Your task to perform on an android device: Go to eBay Image 0: 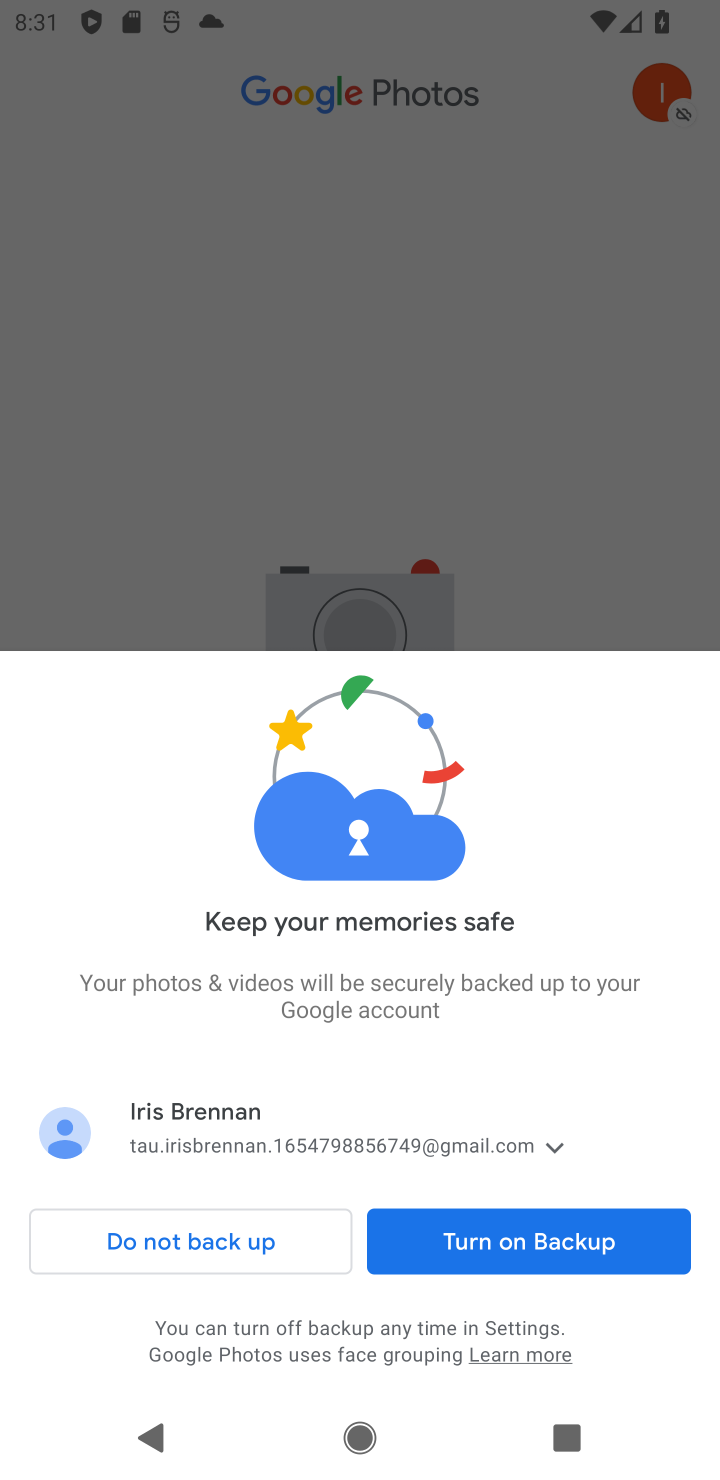
Step 0: press home button
Your task to perform on an android device: Go to eBay Image 1: 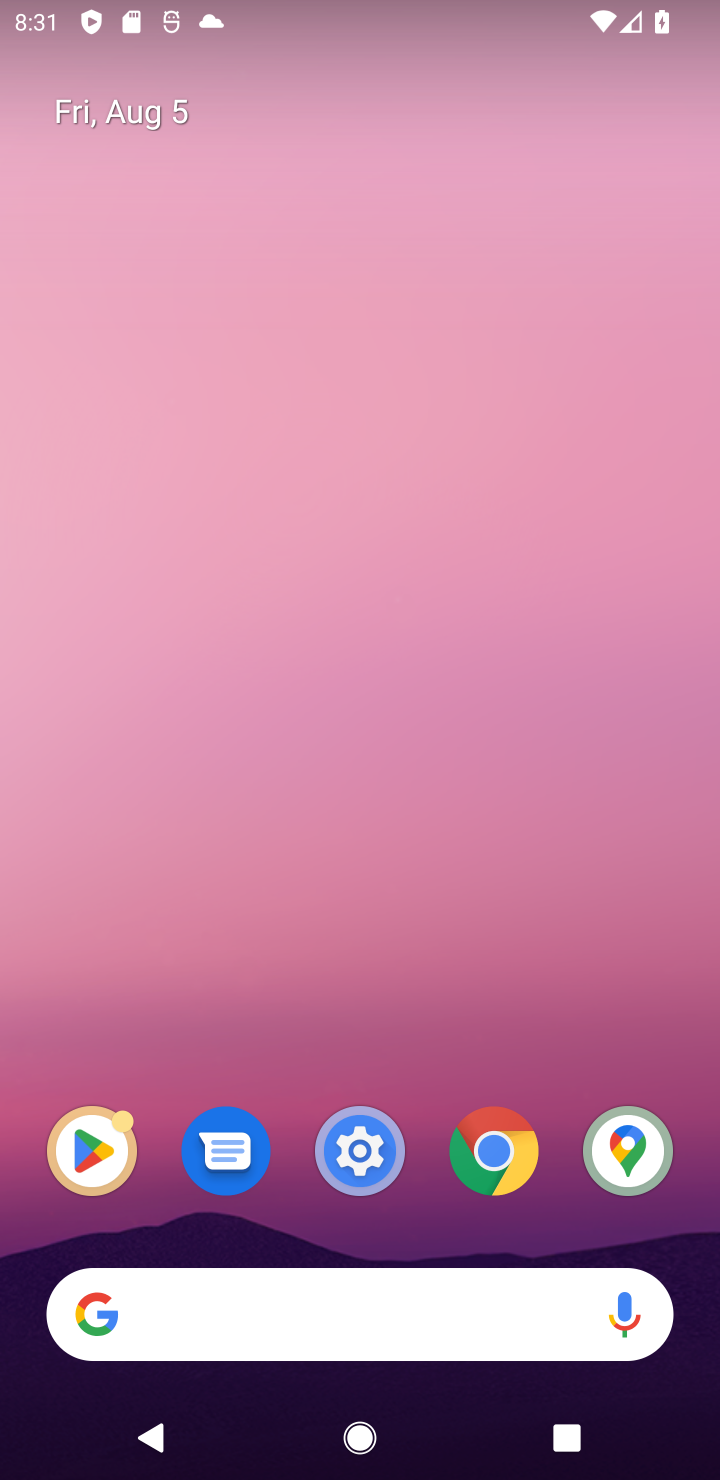
Step 1: click (509, 1160)
Your task to perform on an android device: Go to eBay Image 2: 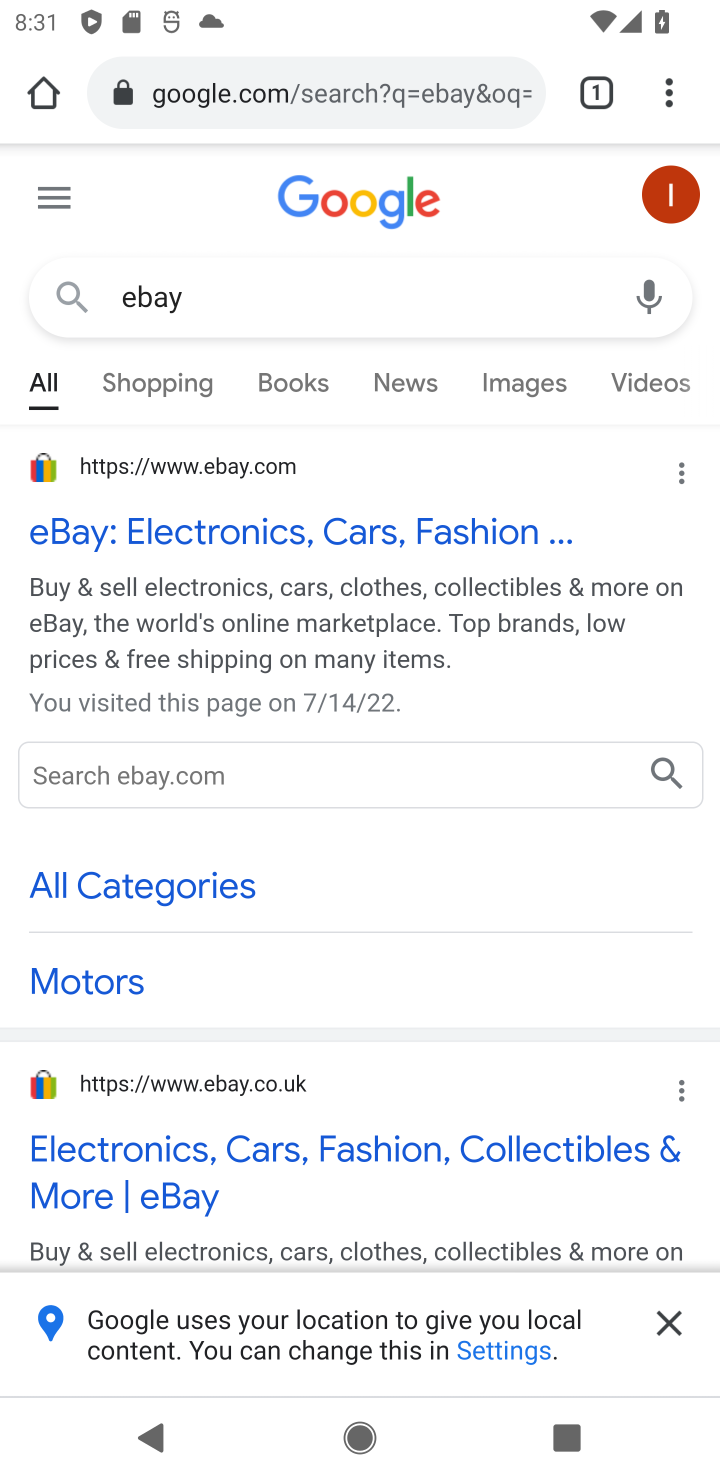
Step 2: click (167, 541)
Your task to perform on an android device: Go to eBay Image 3: 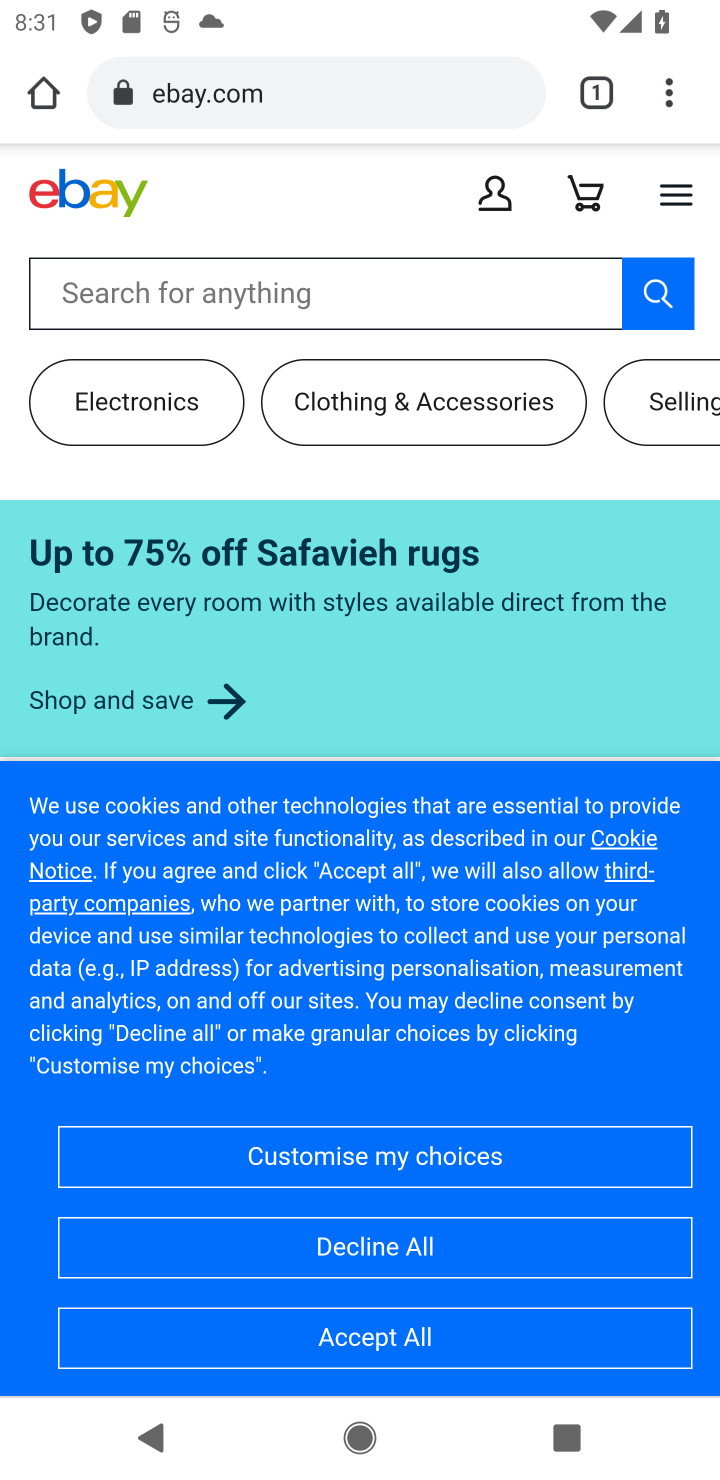
Step 3: task complete